Your task to perform on an android device: Open notification settings Image 0: 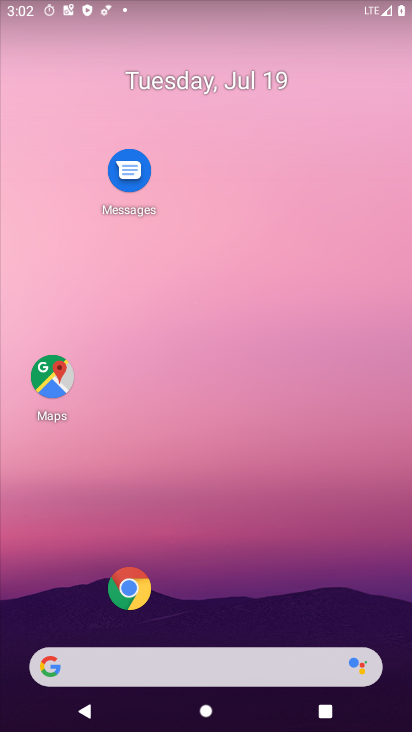
Step 0: drag from (50, 653) to (292, 127)
Your task to perform on an android device: Open notification settings Image 1: 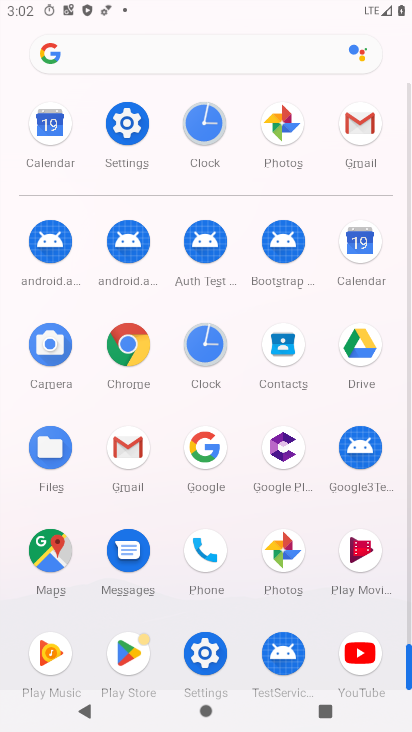
Step 1: click (212, 653)
Your task to perform on an android device: Open notification settings Image 2: 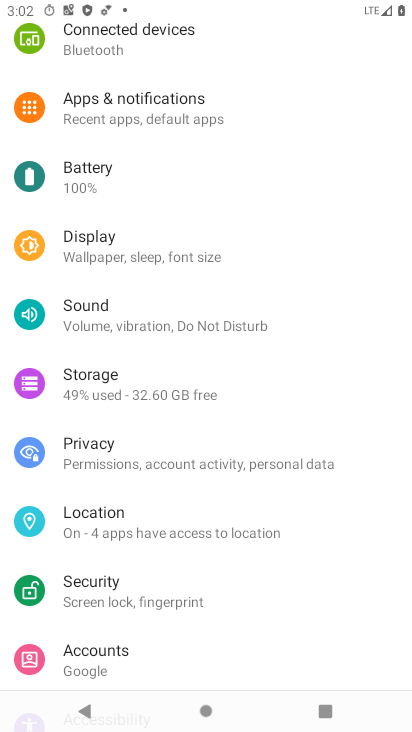
Step 2: click (152, 100)
Your task to perform on an android device: Open notification settings Image 3: 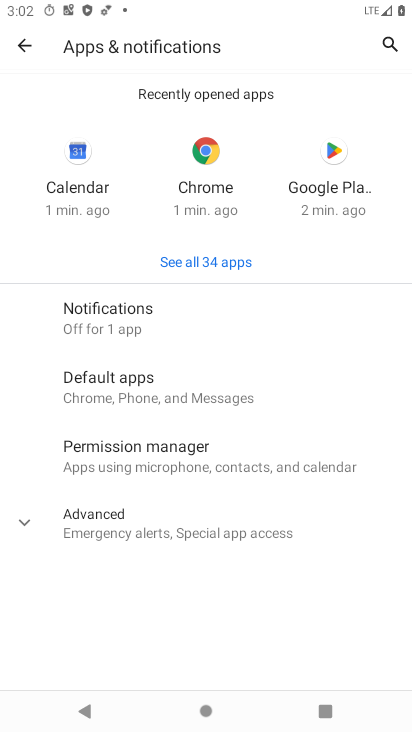
Step 3: task complete